Your task to perform on an android device: Search for vegetarian restaurants on Maps Image 0: 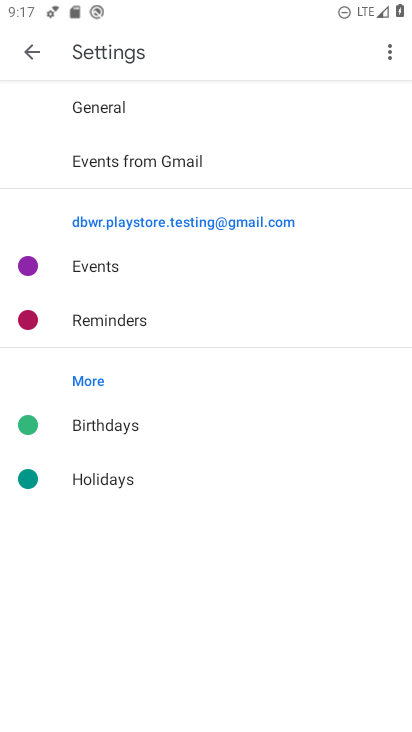
Step 0: press home button
Your task to perform on an android device: Search for vegetarian restaurants on Maps Image 1: 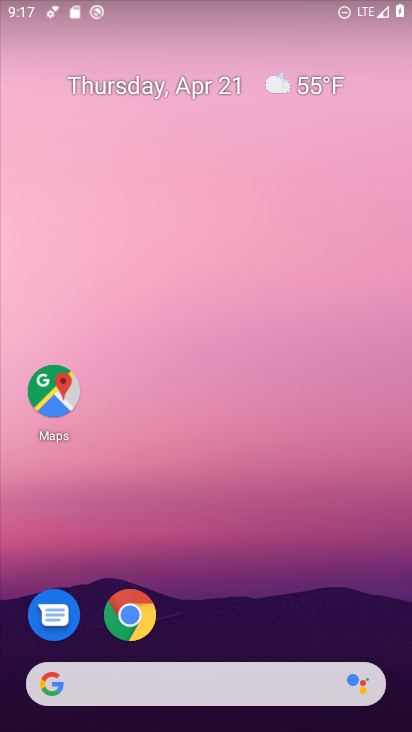
Step 1: drag from (296, 341) to (316, 7)
Your task to perform on an android device: Search for vegetarian restaurants on Maps Image 2: 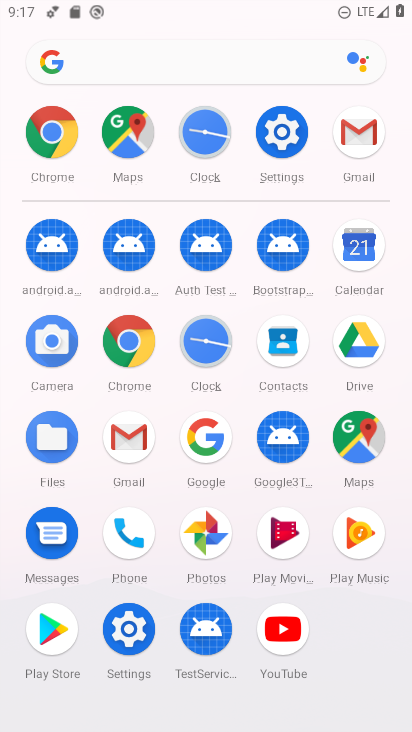
Step 2: click (118, 146)
Your task to perform on an android device: Search for vegetarian restaurants on Maps Image 3: 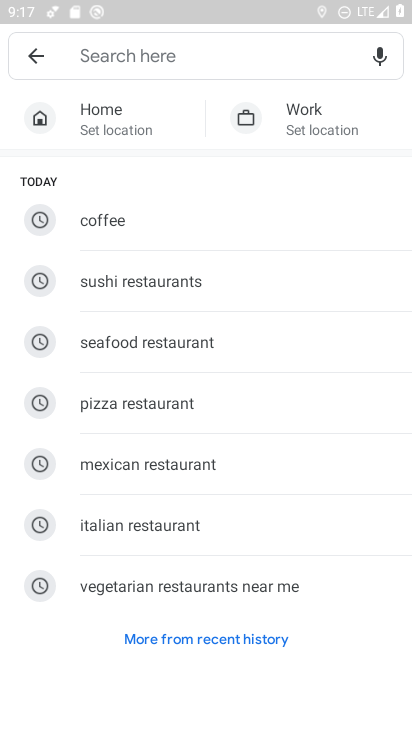
Step 3: click (173, 59)
Your task to perform on an android device: Search for vegetarian restaurants on Maps Image 4: 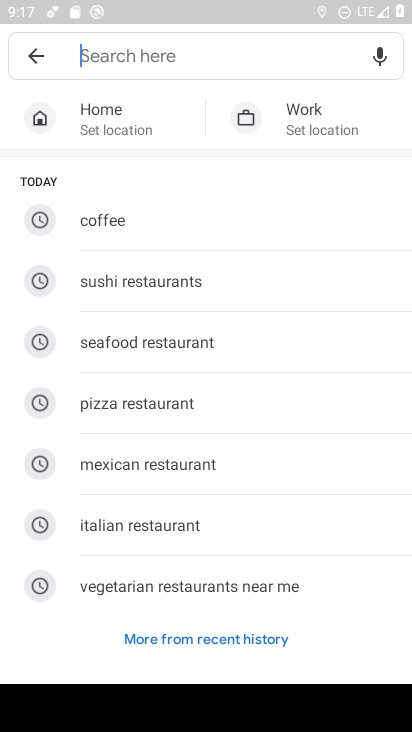
Step 4: click (199, 592)
Your task to perform on an android device: Search for vegetarian restaurants on Maps Image 5: 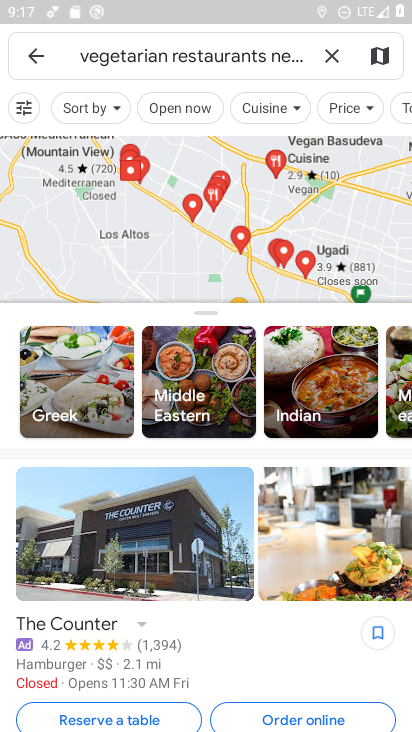
Step 5: task complete